Your task to perform on an android device: open app "Firefox Browser" (install if not already installed) Image 0: 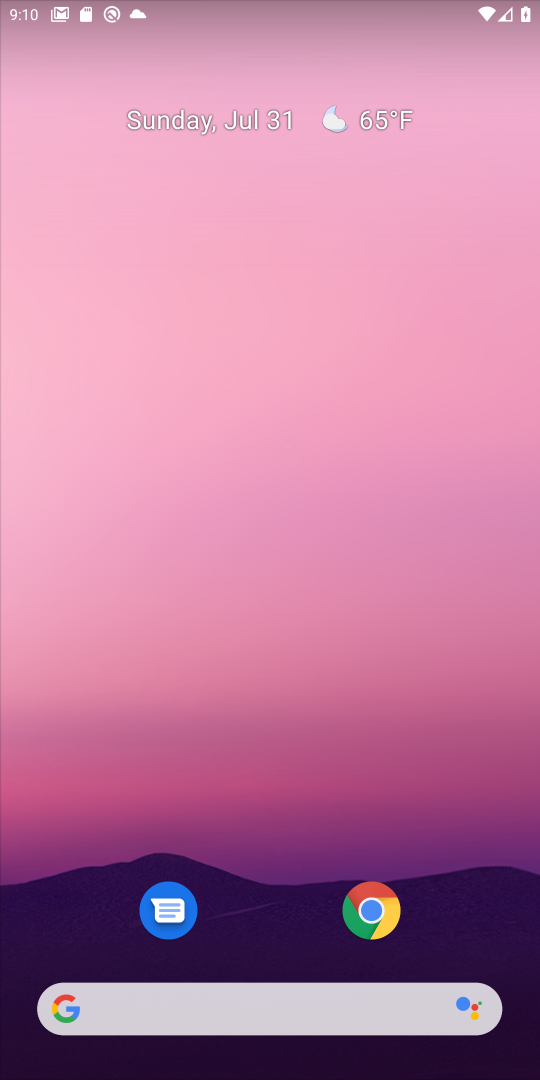
Step 0: drag from (300, 537) to (300, 325)
Your task to perform on an android device: open app "Firefox Browser" (install if not already installed) Image 1: 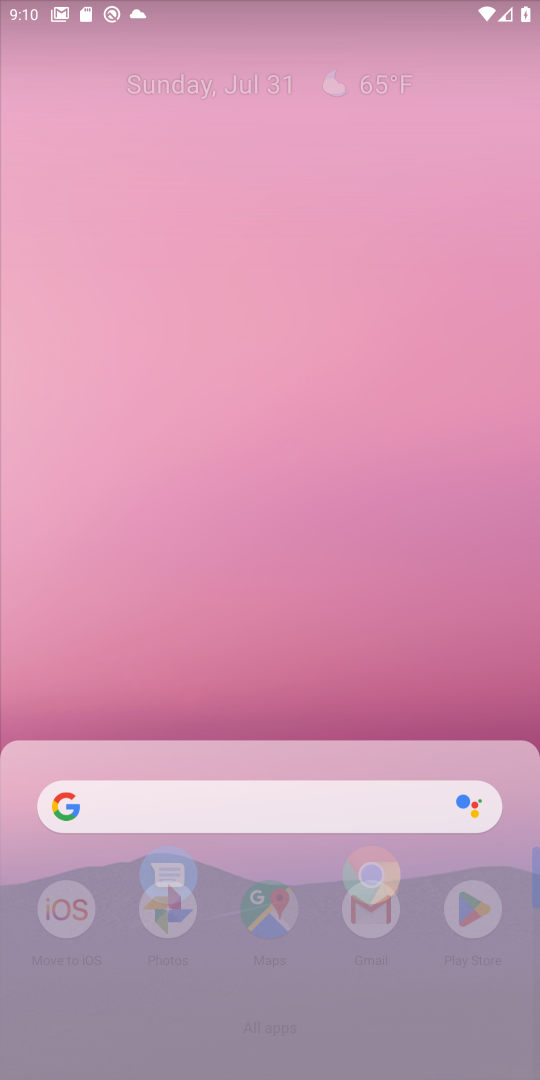
Step 1: drag from (332, 886) to (327, 360)
Your task to perform on an android device: open app "Firefox Browser" (install if not already installed) Image 2: 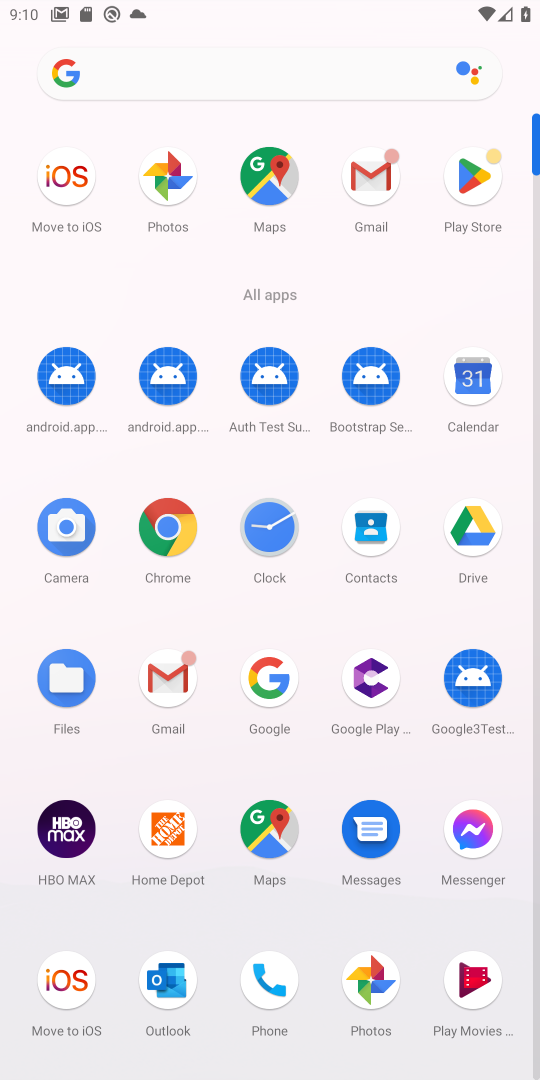
Step 2: click (373, 974)
Your task to perform on an android device: open app "Firefox Browser" (install if not already installed) Image 3: 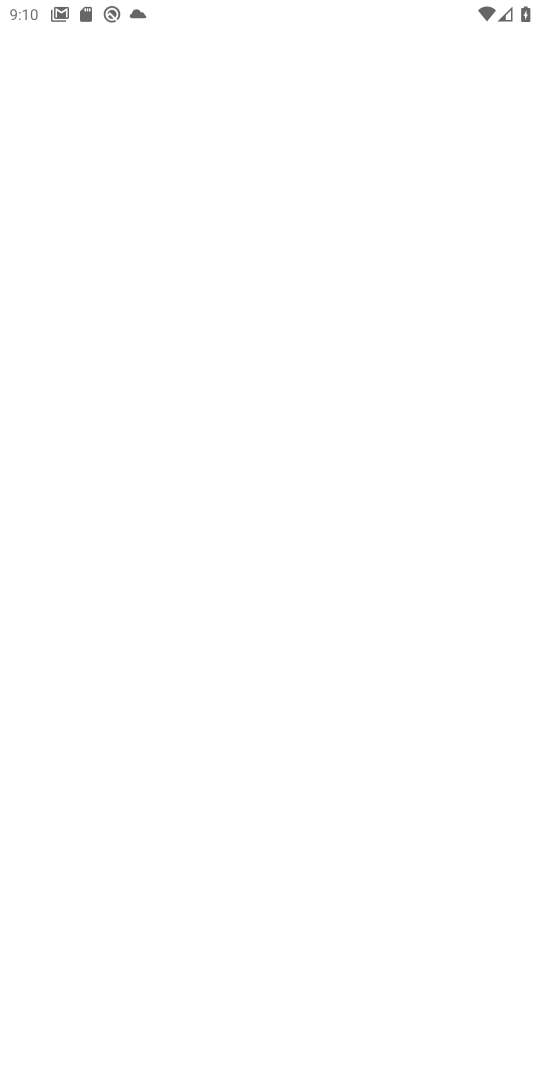
Step 3: press back button
Your task to perform on an android device: open app "Firefox Browser" (install if not already installed) Image 4: 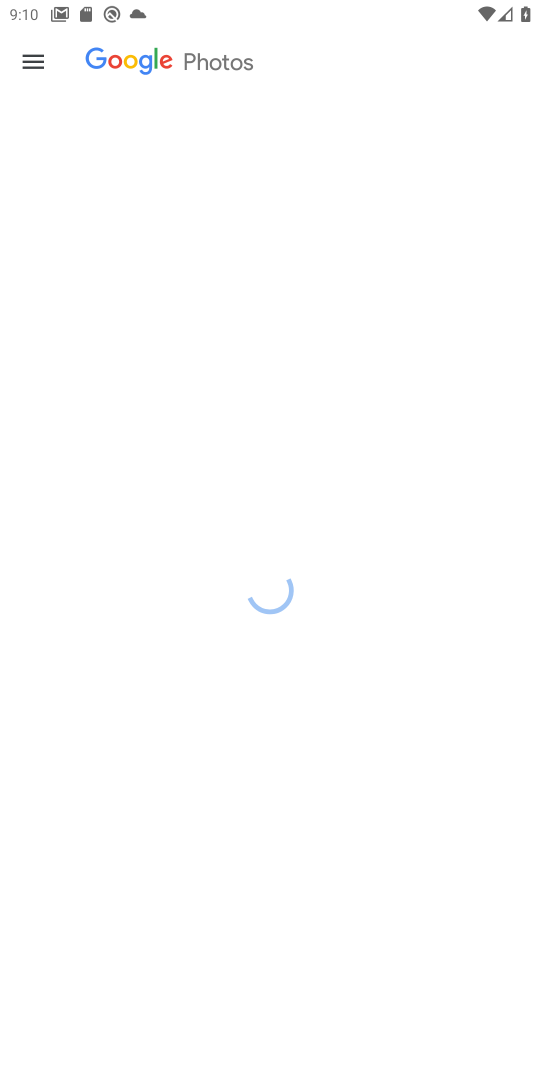
Step 4: press back button
Your task to perform on an android device: open app "Firefox Browser" (install if not already installed) Image 5: 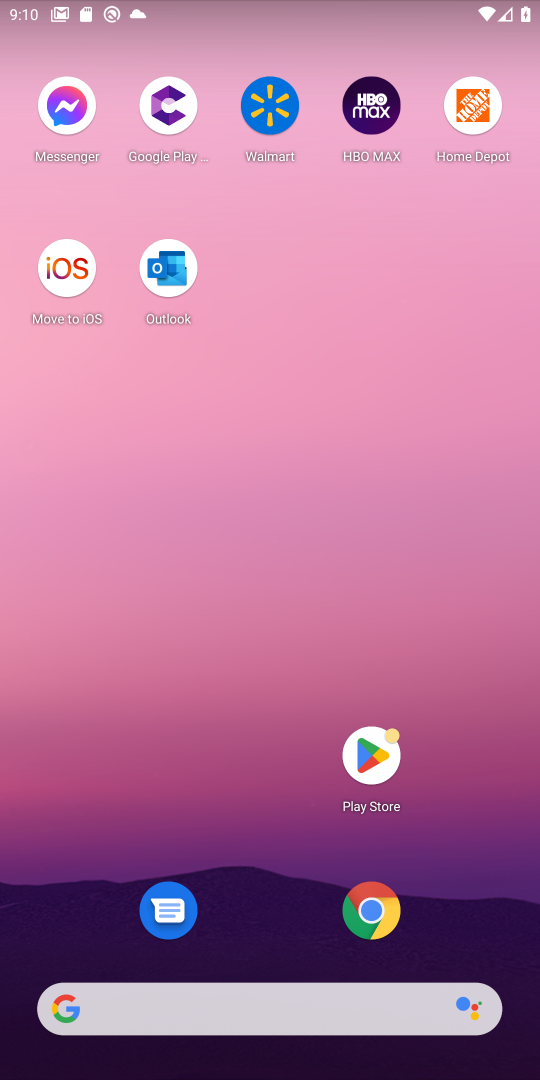
Step 5: drag from (252, 854) to (237, 375)
Your task to perform on an android device: open app "Firefox Browser" (install if not already installed) Image 6: 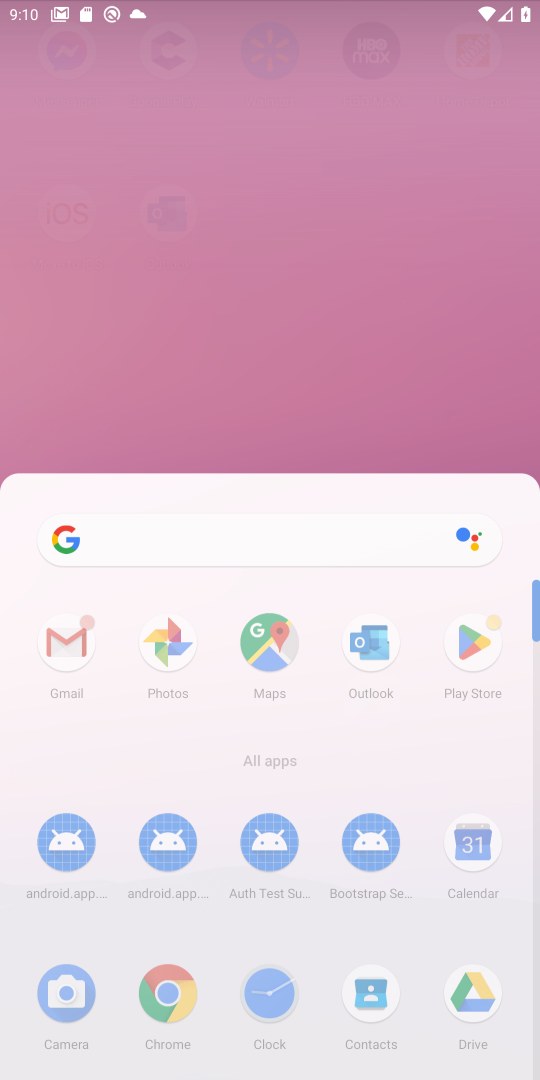
Step 6: drag from (303, 583) to (382, 202)
Your task to perform on an android device: open app "Firefox Browser" (install if not already installed) Image 7: 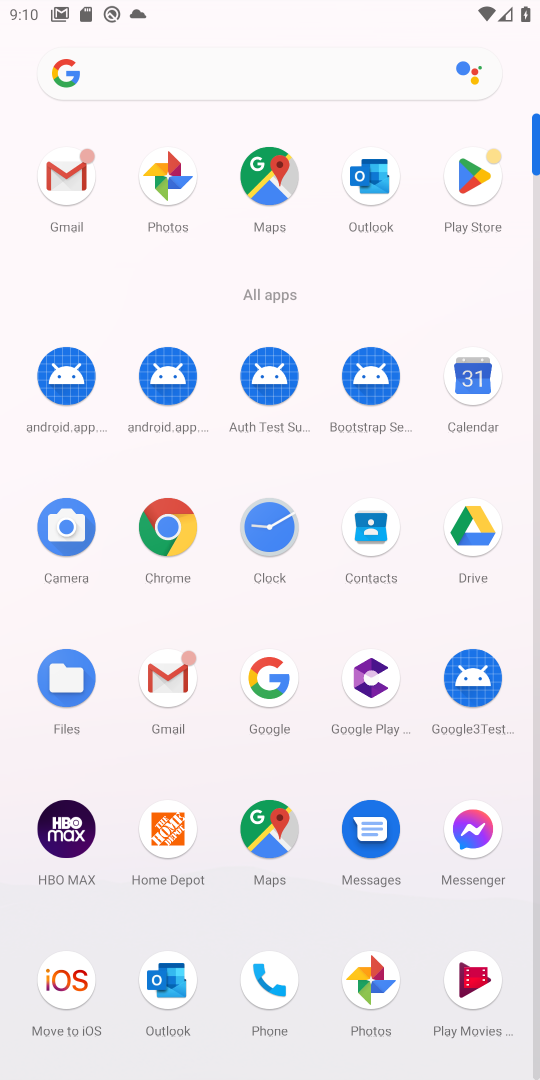
Step 7: click (408, 301)
Your task to perform on an android device: open app "Firefox Browser" (install if not already installed) Image 8: 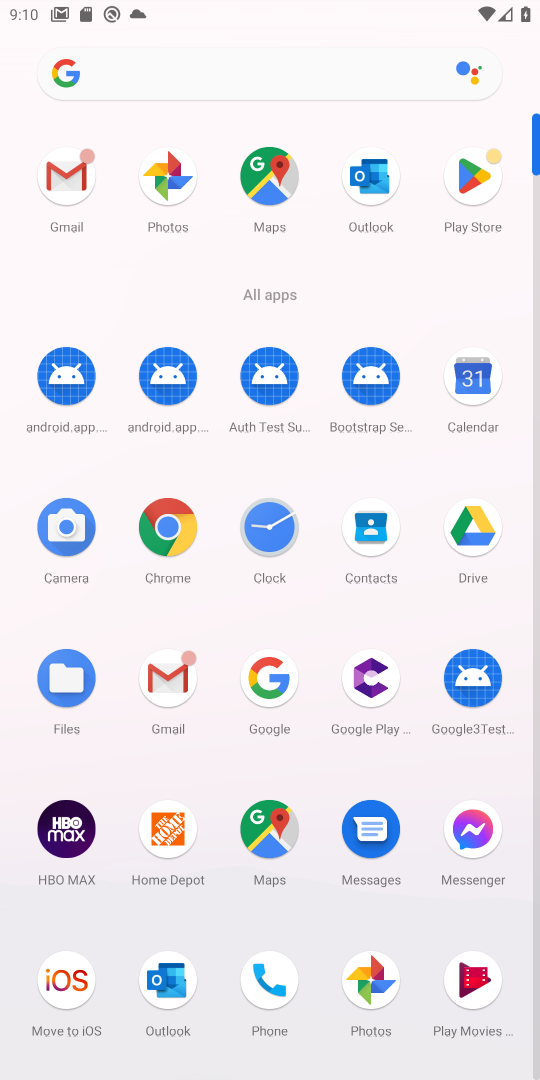
Step 8: click (456, 179)
Your task to perform on an android device: open app "Firefox Browser" (install if not already installed) Image 9: 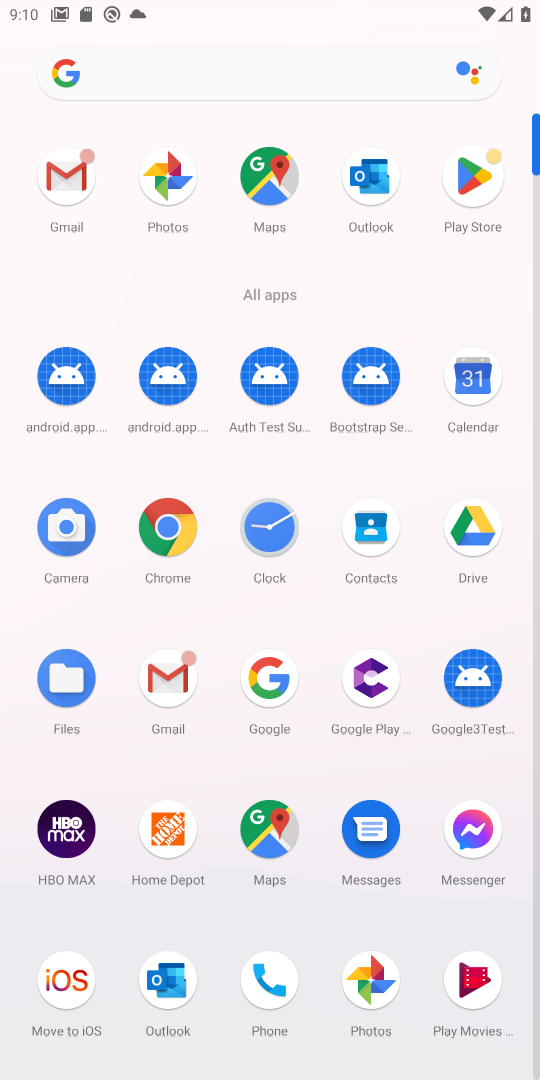
Step 9: click (455, 178)
Your task to perform on an android device: open app "Firefox Browser" (install if not already installed) Image 10: 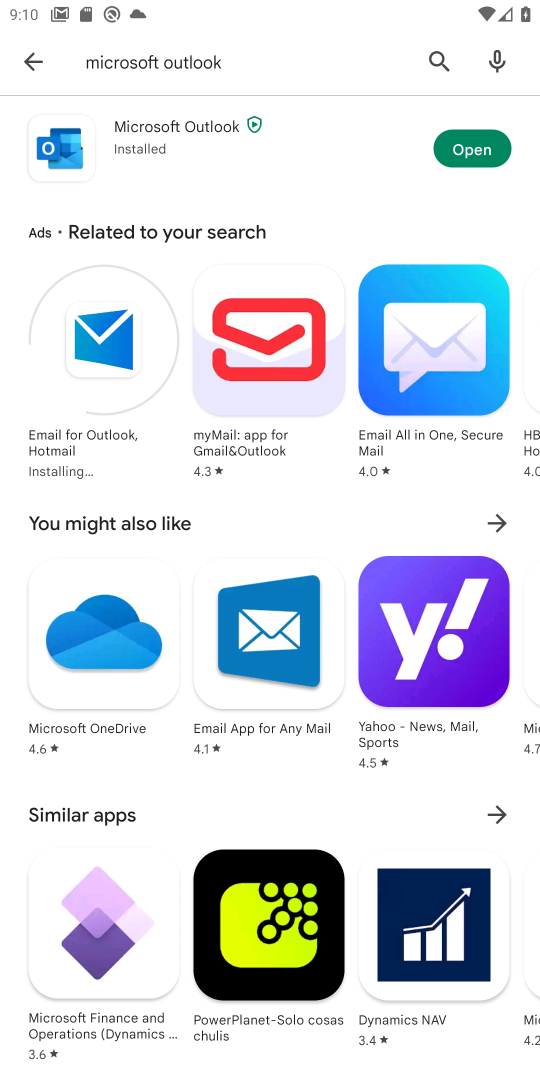
Step 10: click (28, 67)
Your task to perform on an android device: open app "Firefox Browser" (install if not already installed) Image 11: 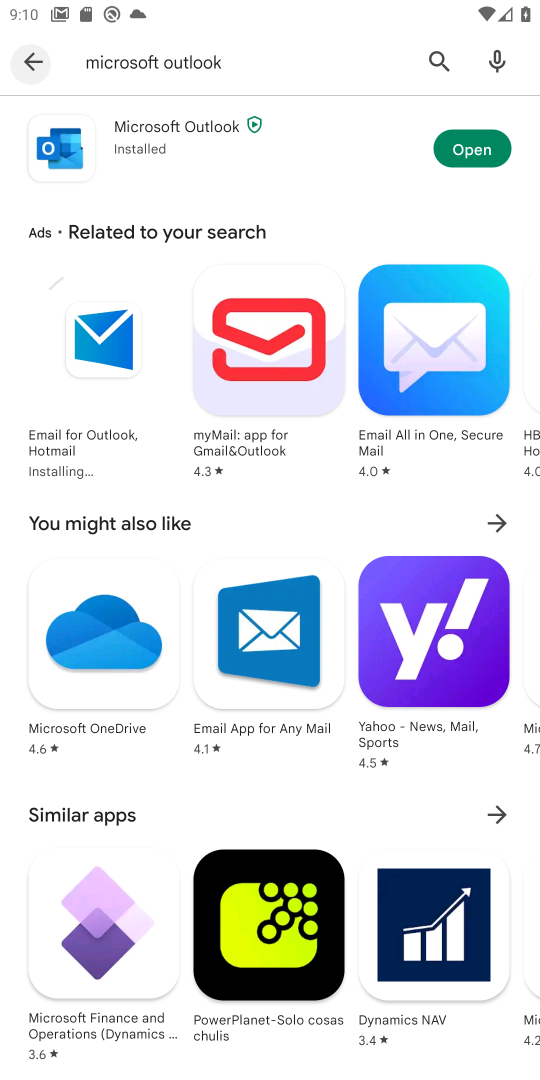
Step 11: click (27, 66)
Your task to perform on an android device: open app "Firefox Browser" (install if not already installed) Image 12: 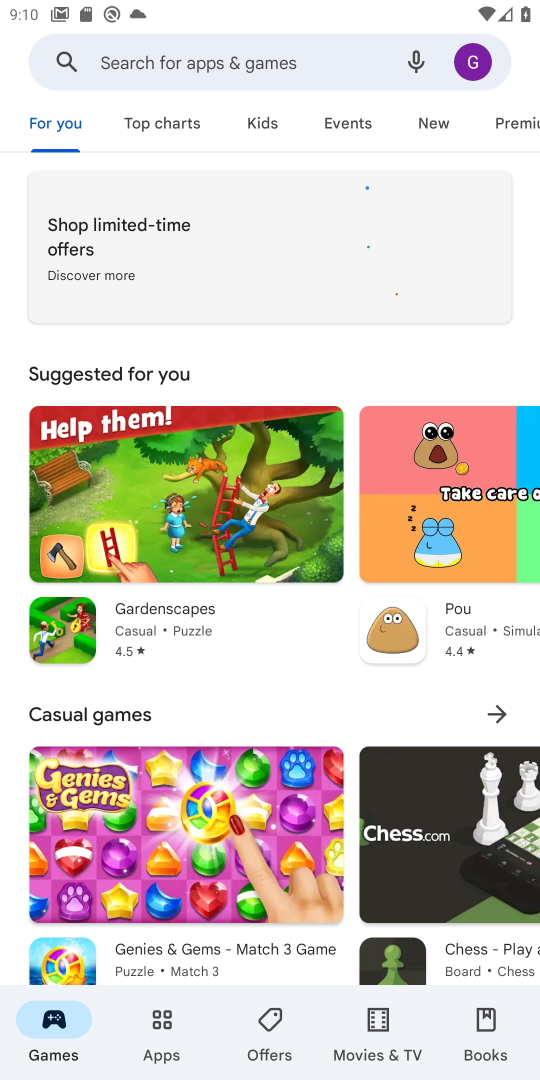
Step 12: click (91, 66)
Your task to perform on an android device: open app "Firefox Browser" (install if not already installed) Image 13: 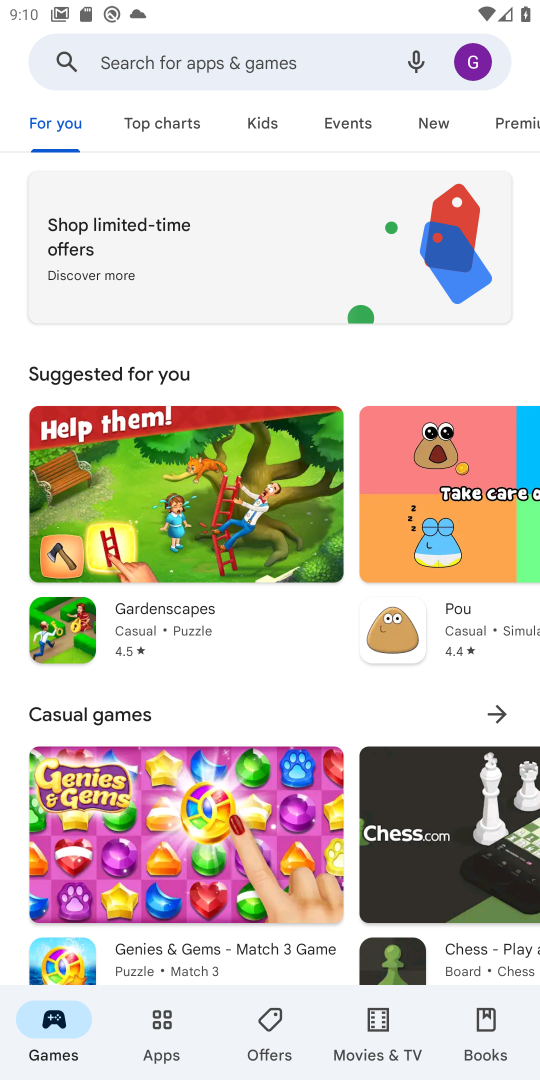
Step 13: click (148, 84)
Your task to perform on an android device: open app "Firefox Browser" (install if not already installed) Image 14: 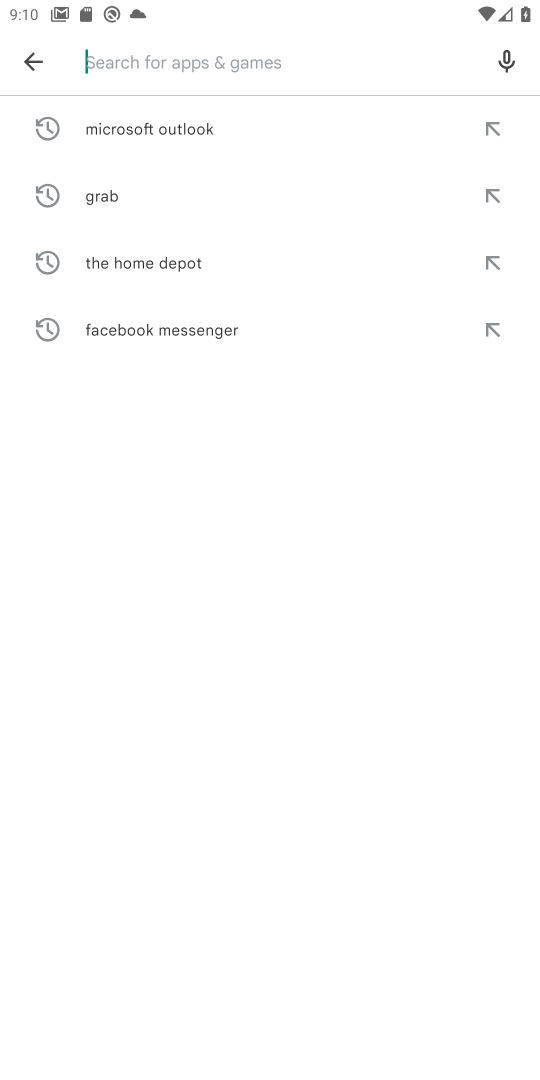
Step 14: click (154, 52)
Your task to perform on an android device: open app "Firefox Browser" (install if not already installed) Image 15: 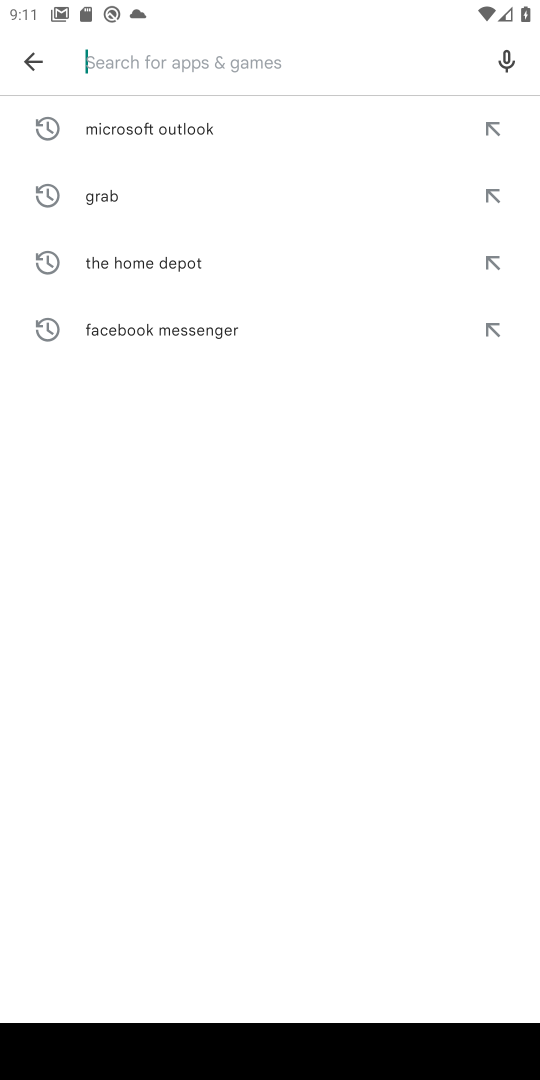
Step 15: type "firefox browser"
Your task to perform on an android device: open app "Firefox Browser" (install if not already installed) Image 16: 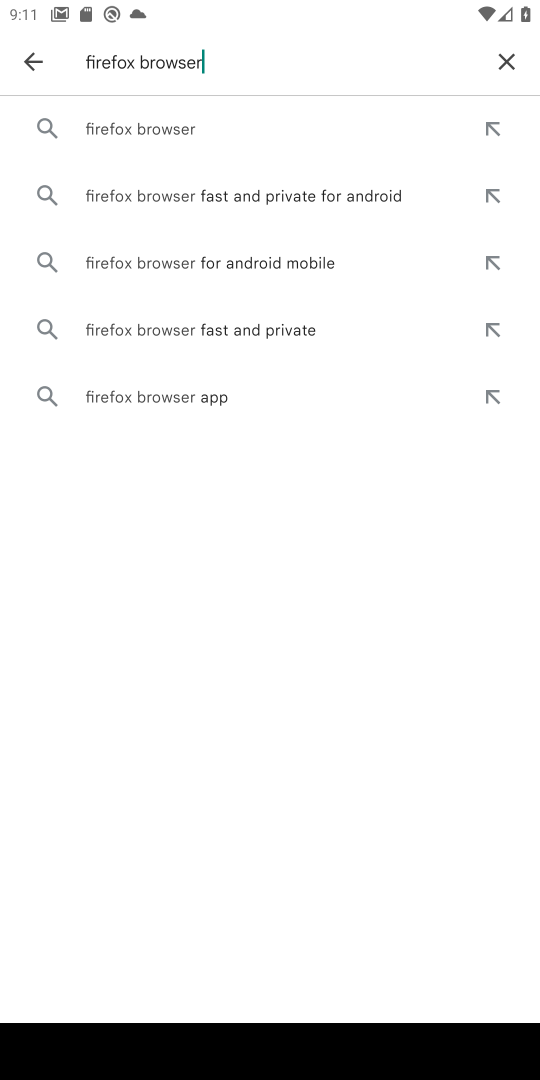
Step 16: click (130, 129)
Your task to perform on an android device: open app "Firefox Browser" (install if not already installed) Image 17: 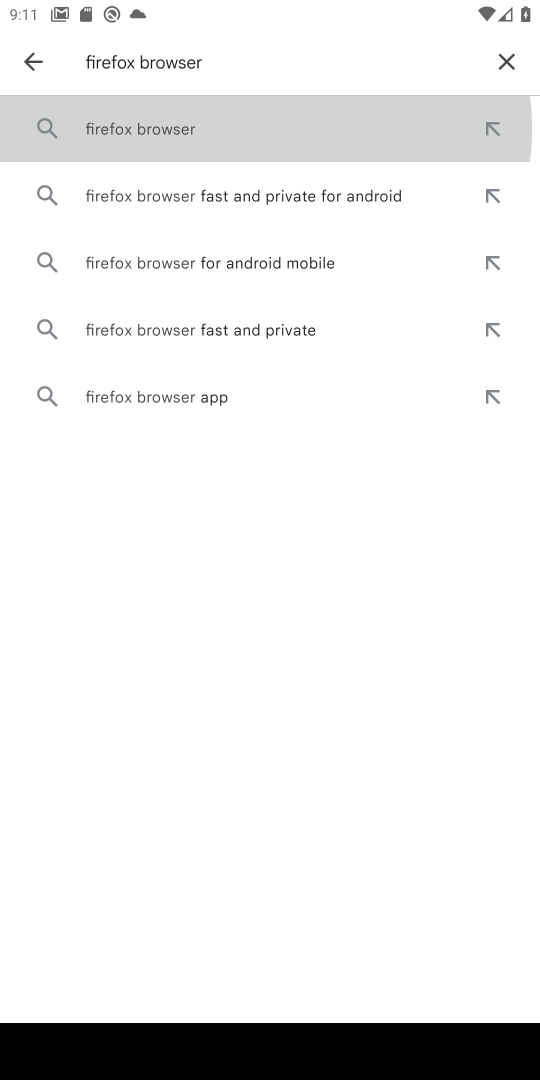
Step 17: click (130, 126)
Your task to perform on an android device: open app "Firefox Browser" (install if not already installed) Image 18: 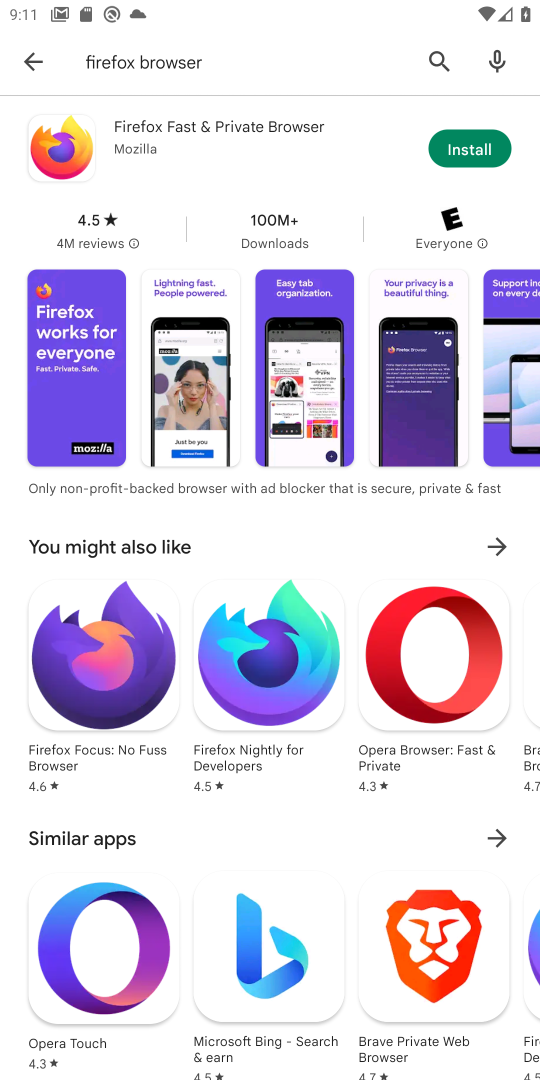
Step 18: click (467, 149)
Your task to perform on an android device: open app "Firefox Browser" (install if not already installed) Image 19: 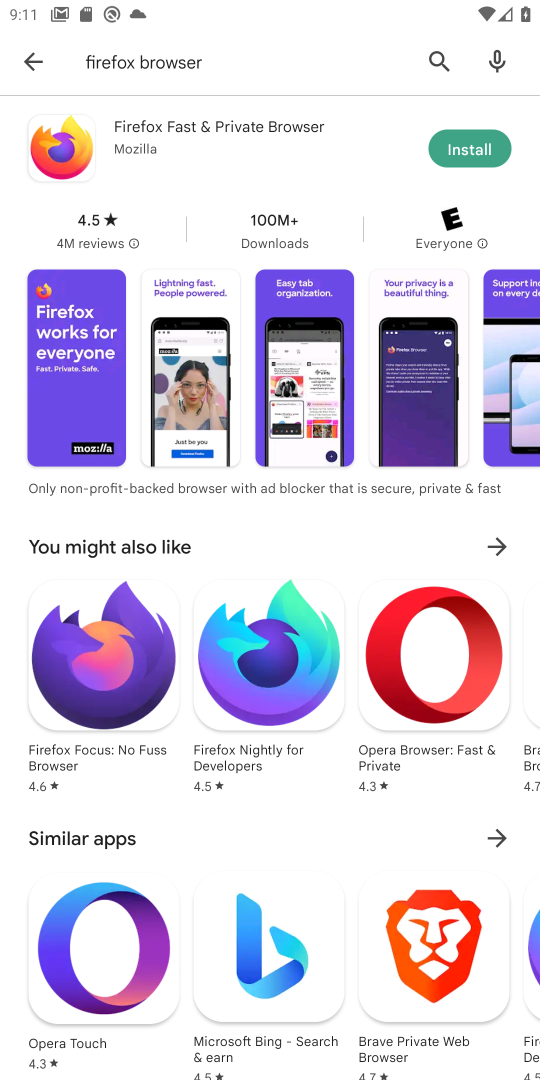
Step 19: click (469, 151)
Your task to perform on an android device: open app "Firefox Browser" (install if not already installed) Image 20: 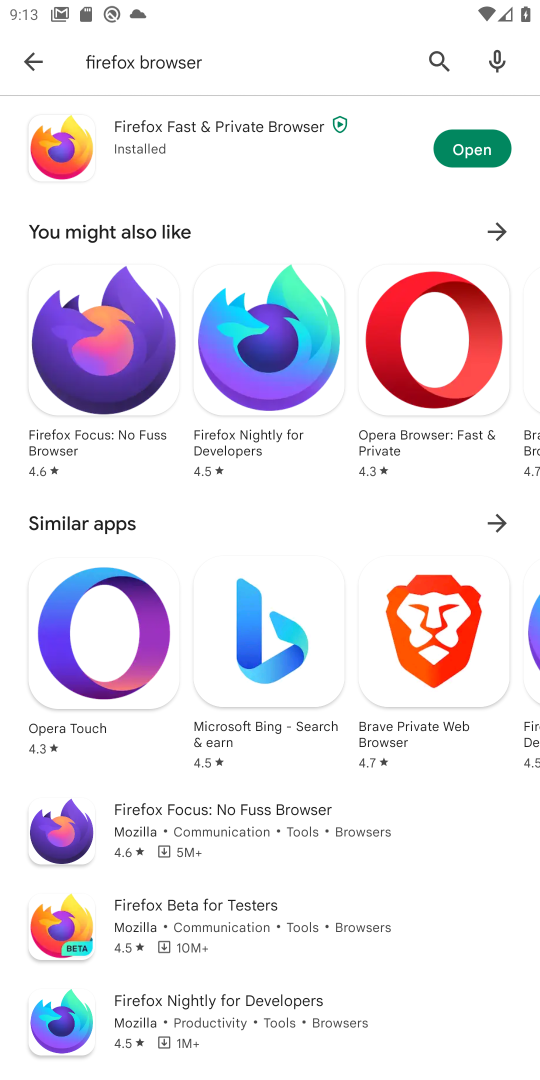
Step 20: click (461, 149)
Your task to perform on an android device: open app "Firefox Browser" (install if not already installed) Image 21: 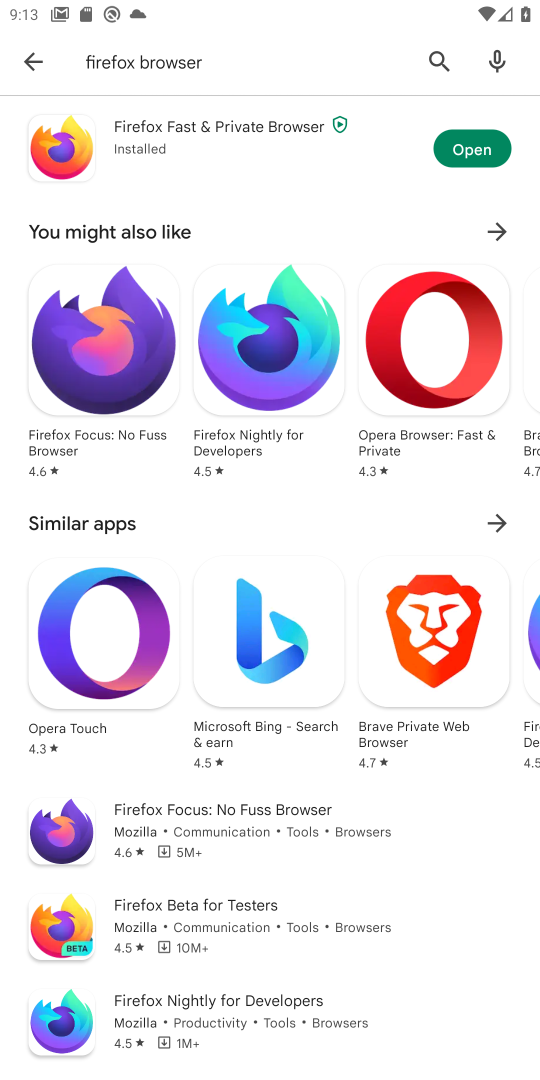
Step 21: click (462, 147)
Your task to perform on an android device: open app "Firefox Browser" (install if not already installed) Image 22: 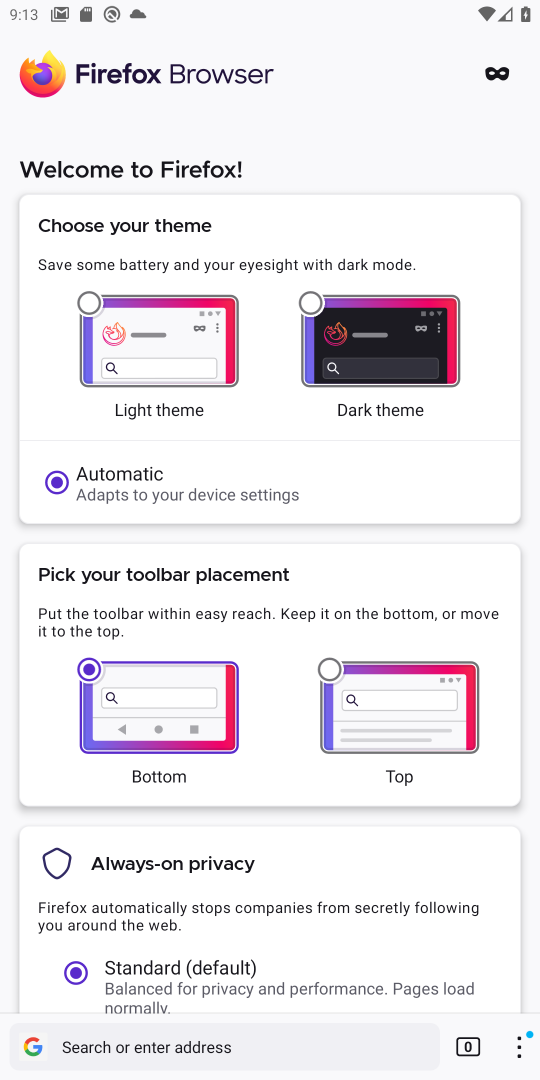
Step 22: task complete